Your task to perform on an android device: Show me recent news Image 0: 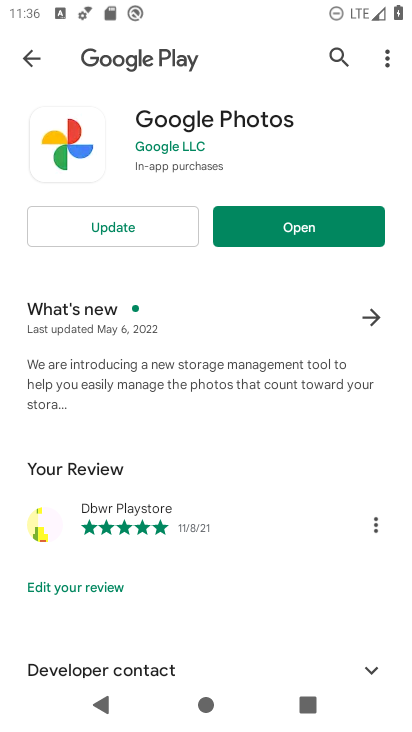
Step 0: press home button
Your task to perform on an android device: Show me recent news Image 1: 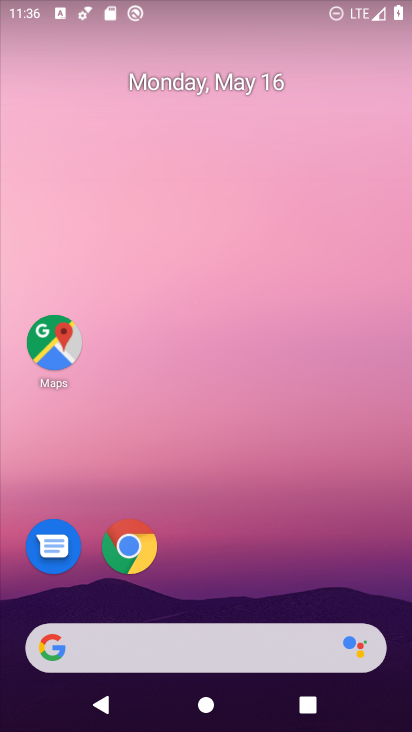
Step 1: click (294, 649)
Your task to perform on an android device: Show me recent news Image 2: 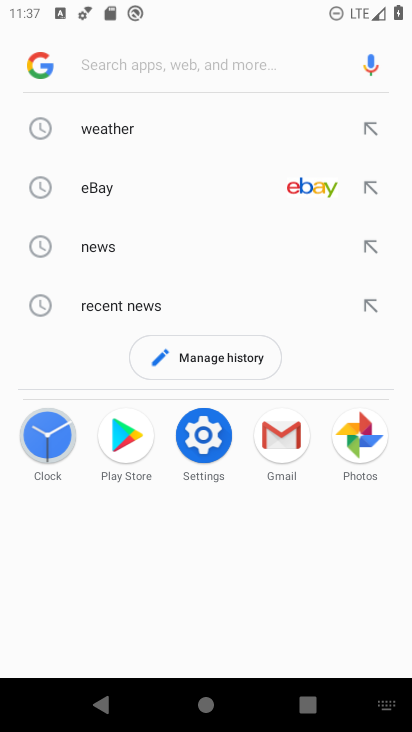
Step 2: click (101, 307)
Your task to perform on an android device: Show me recent news Image 3: 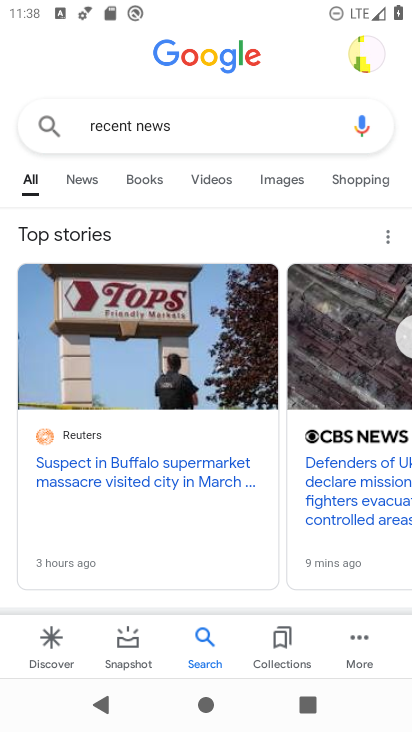
Step 3: task complete